Your task to perform on an android device: Check the weather Image 0: 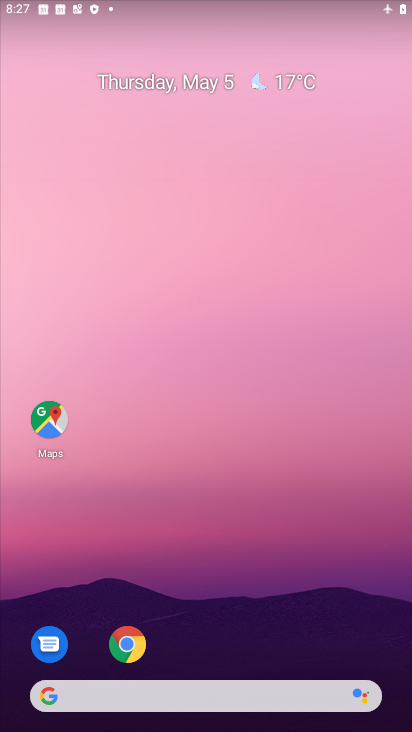
Step 0: click (400, 632)
Your task to perform on an android device: Check the weather Image 1: 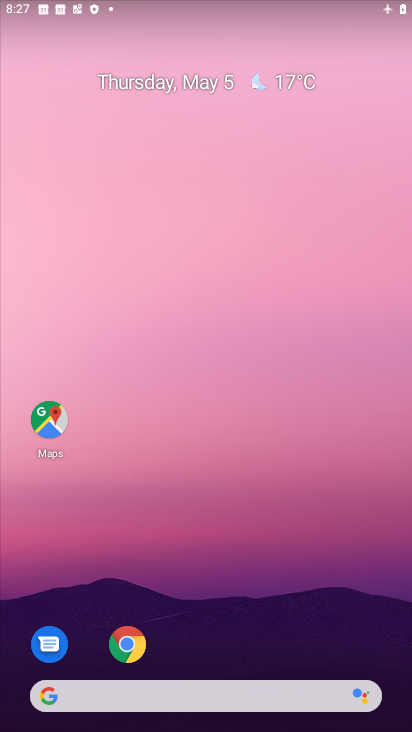
Step 1: drag from (240, 657) to (259, 193)
Your task to perform on an android device: Check the weather Image 2: 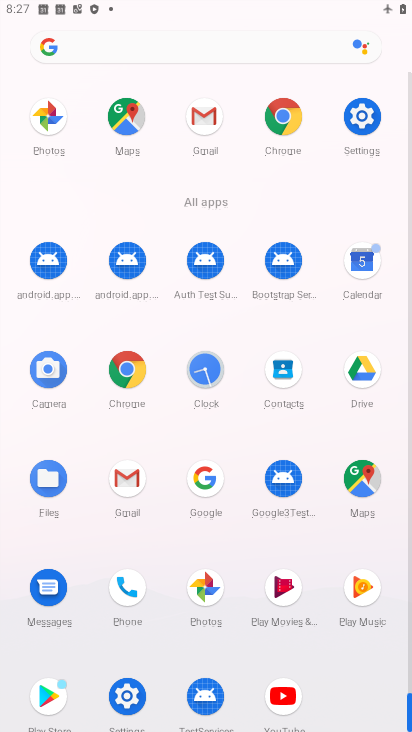
Step 2: click (206, 44)
Your task to perform on an android device: Check the weather Image 3: 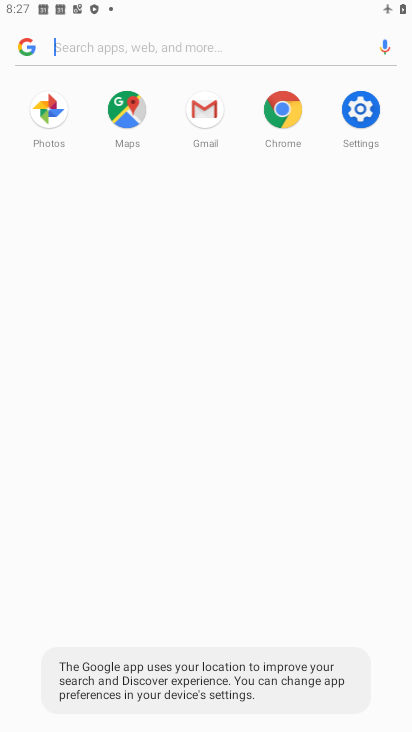
Step 3: click (159, 56)
Your task to perform on an android device: Check the weather Image 4: 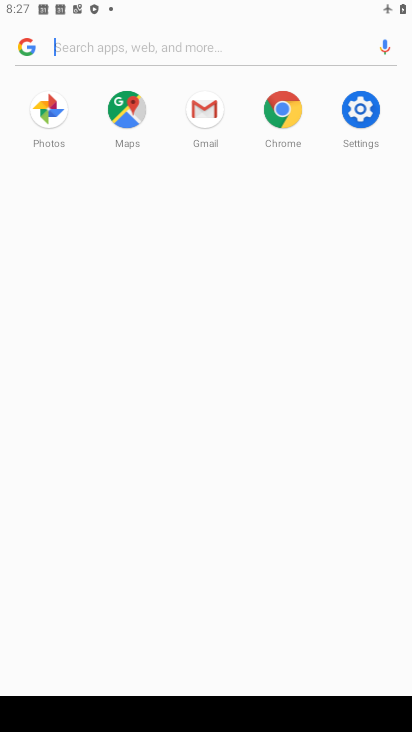
Step 4: click (153, 55)
Your task to perform on an android device: Check the weather Image 5: 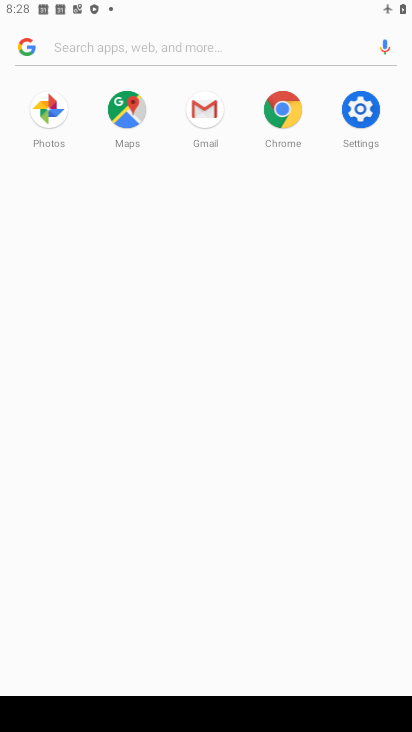
Step 5: type "waether"
Your task to perform on an android device: Check the weather Image 6: 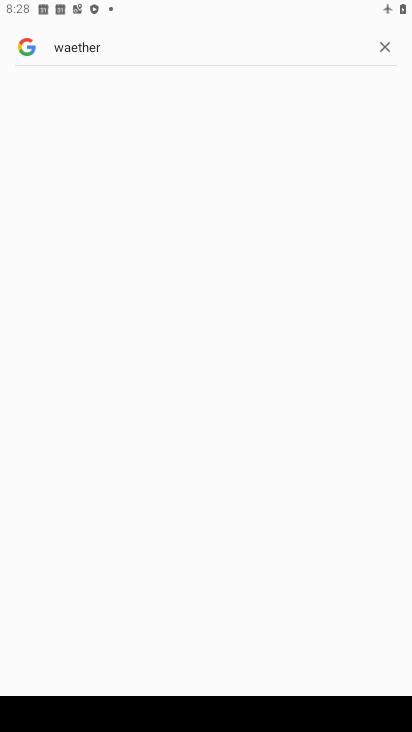
Step 6: click (178, 130)
Your task to perform on an android device: Check the weather Image 7: 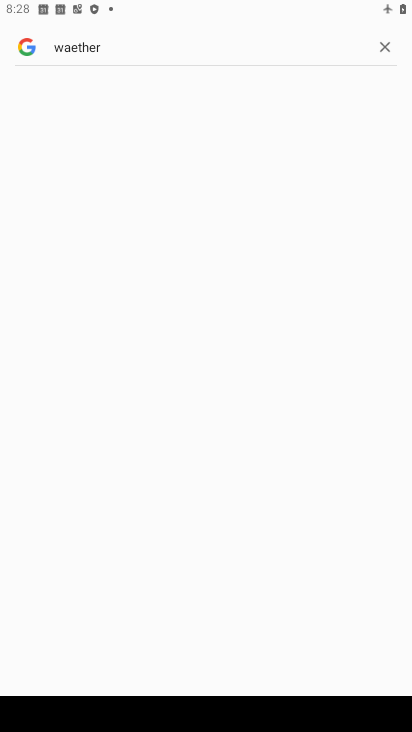
Step 7: click (188, 182)
Your task to perform on an android device: Check the weather Image 8: 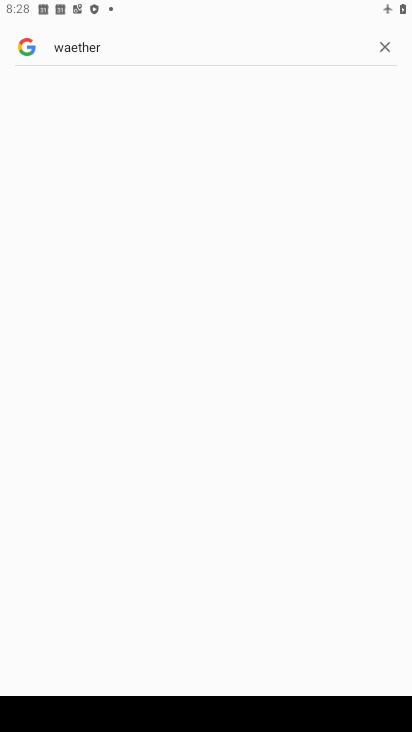
Step 8: click (295, 43)
Your task to perform on an android device: Check the weather Image 9: 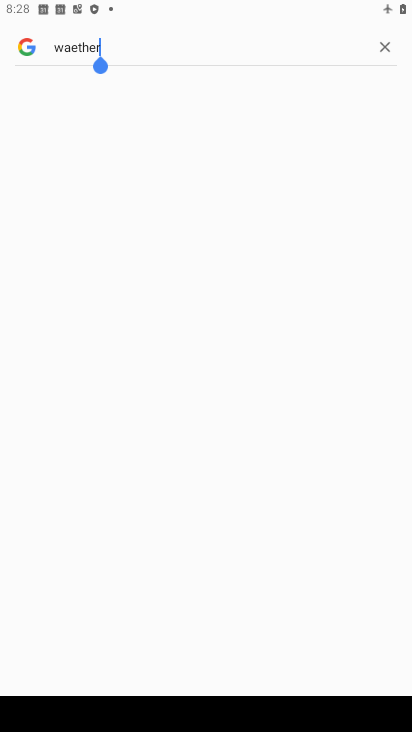
Step 9: click (385, 51)
Your task to perform on an android device: Check the weather Image 10: 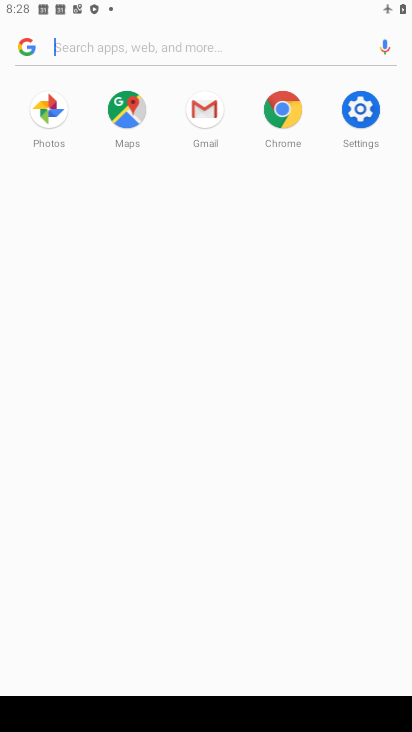
Step 10: press back button
Your task to perform on an android device: Check the weather Image 11: 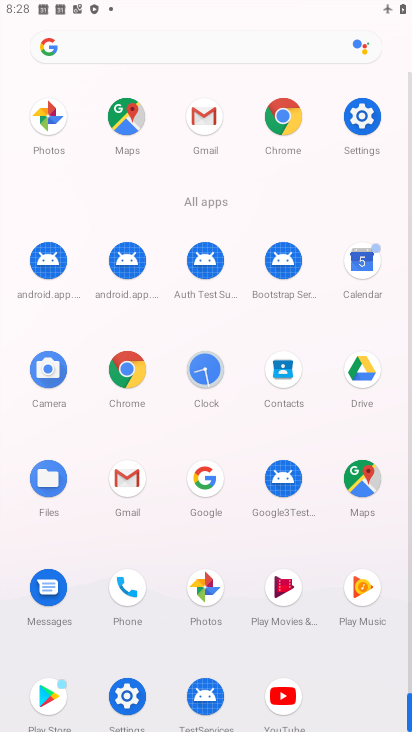
Step 11: click (280, 123)
Your task to perform on an android device: Check the weather Image 12: 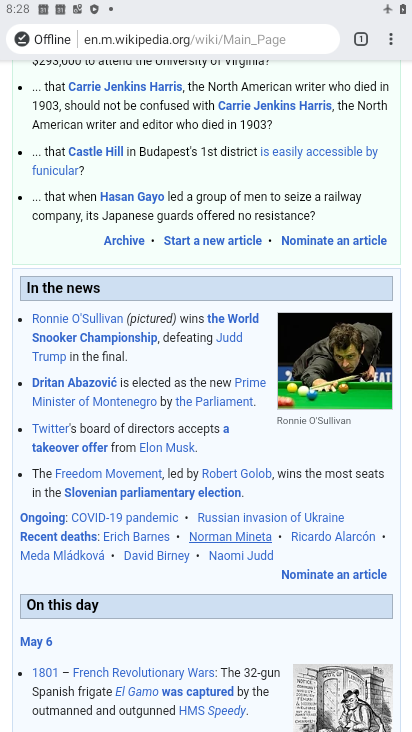
Step 12: drag from (209, 120) to (307, 530)
Your task to perform on an android device: Check the weather Image 13: 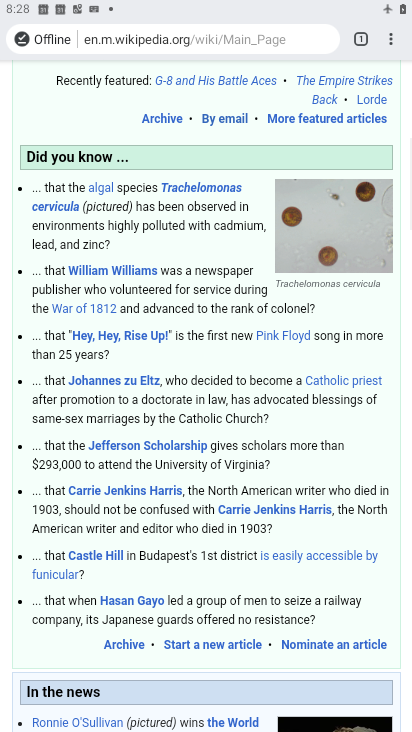
Step 13: click (159, 32)
Your task to perform on an android device: Check the weather Image 14: 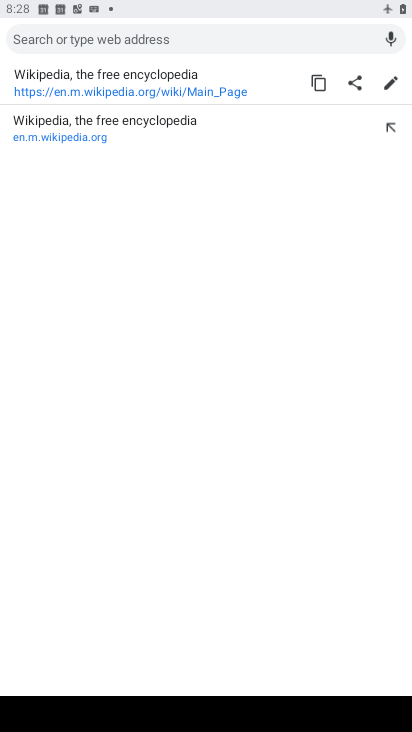
Step 14: type "weatjer"
Your task to perform on an android device: Check the weather Image 15: 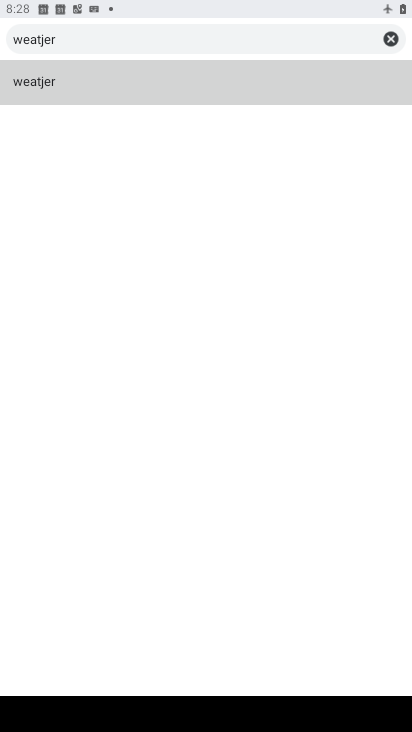
Step 15: click (15, 90)
Your task to perform on an android device: Check the weather Image 16: 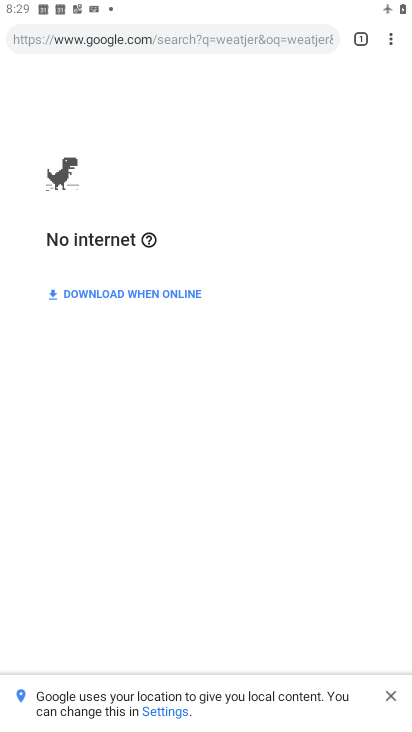
Step 16: task complete